Your task to perform on an android device: all mails in gmail Image 0: 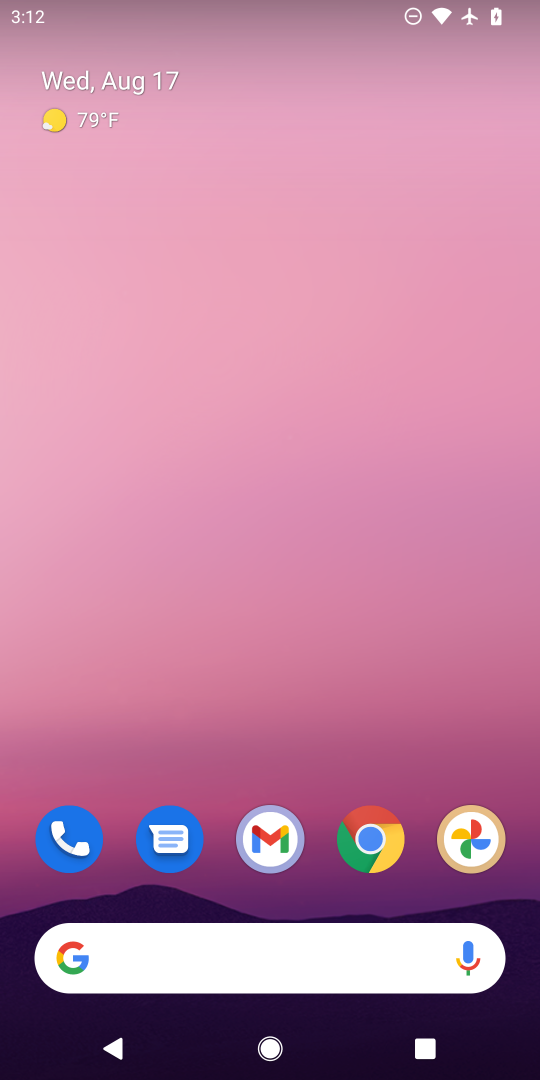
Step 0: drag from (328, 593) to (328, 87)
Your task to perform on an android device: all mails in gmail Image 1: 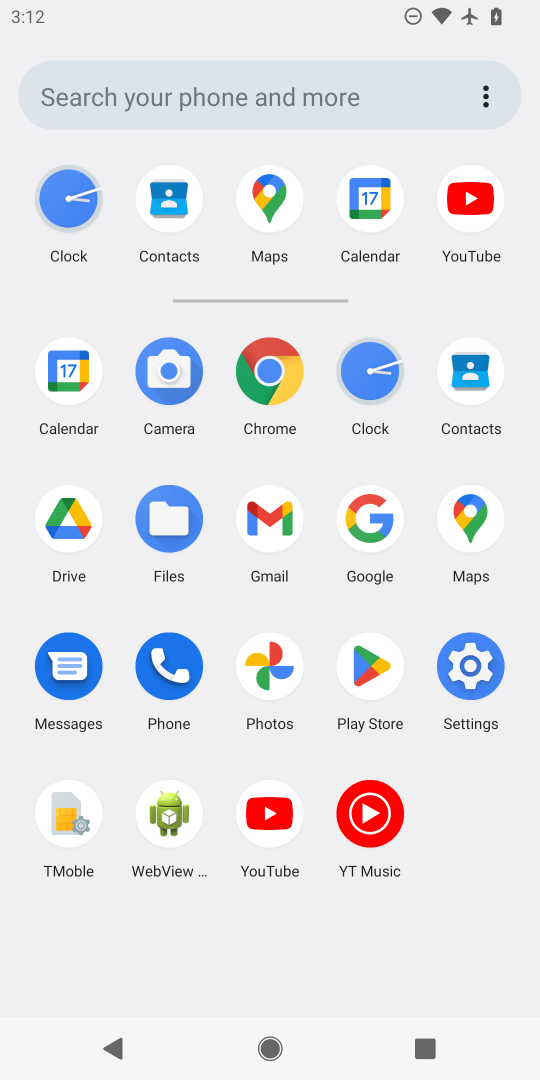
Step 1: click (275, 522)
Your task to perform on an android device: all mails in gmail Image 2: 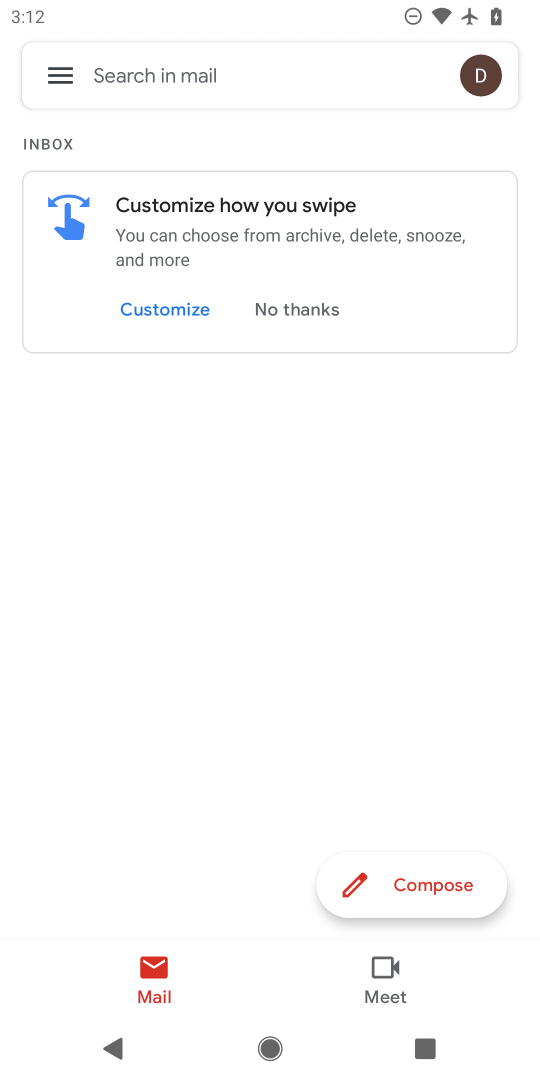
Step 2: click (57, 78)
Your task to perform on an android device: all mails in gmail Image 3: 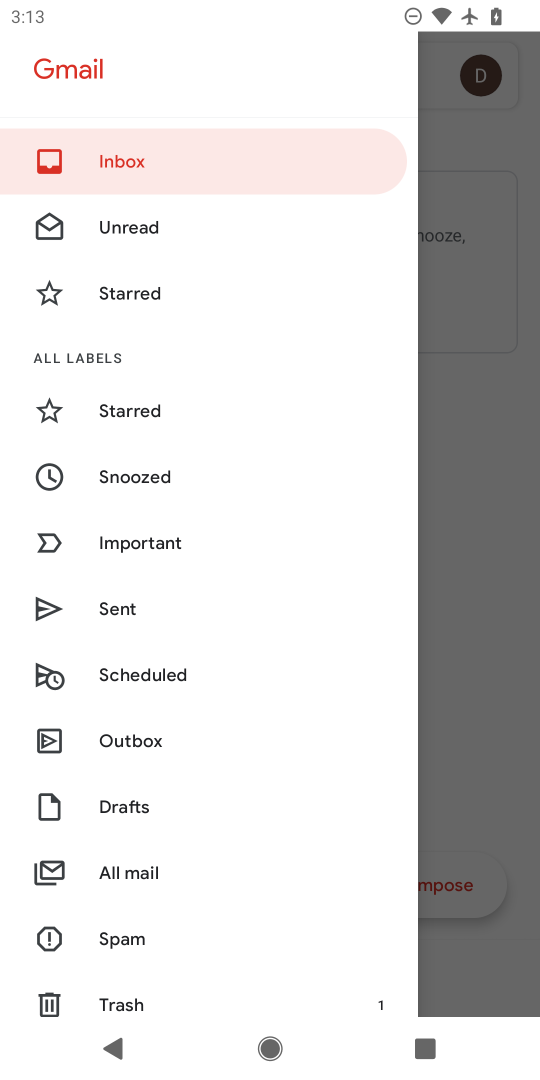
Step 3: click (151, 870)
Your task to perform on an android device: all mails in gmail Image 4: 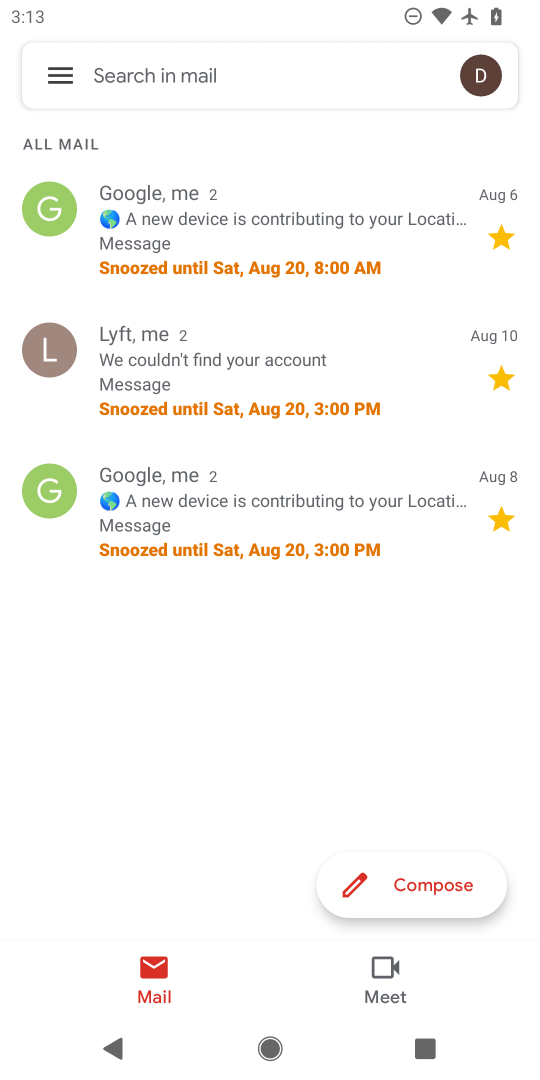
Step 4: task complete